Your task to perform on an android device: stop showing notifications on the lock screen Image 0: 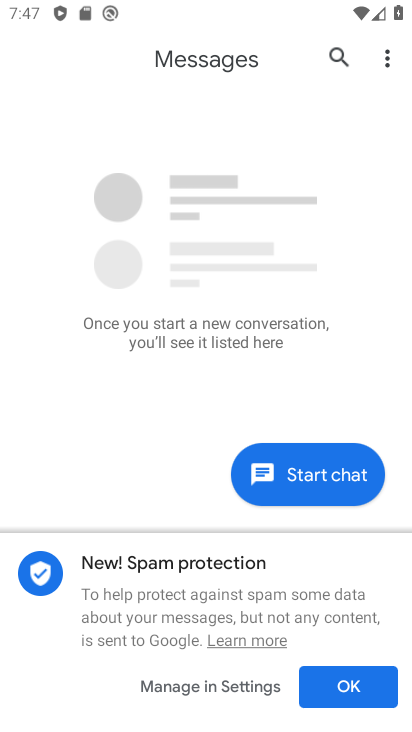
Step 0: press home button
Your task to perform on an android device: stop showing notifications on the lock screen Image 1: 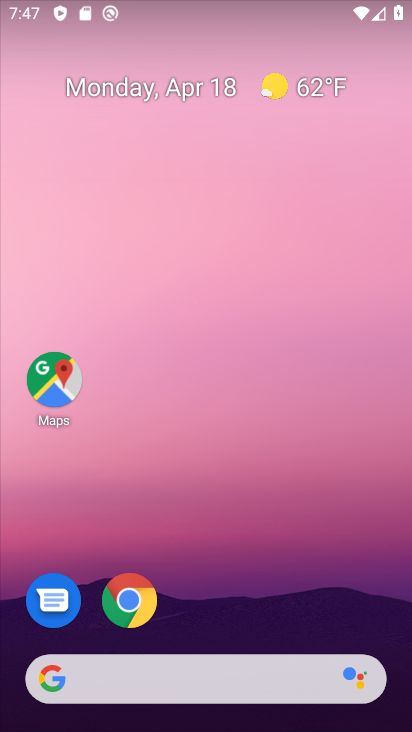
Step 1: drag from (200, 643) to (142, 1)
Your task to perform on an android device: stop showing notifications on the lock screen Image 2: 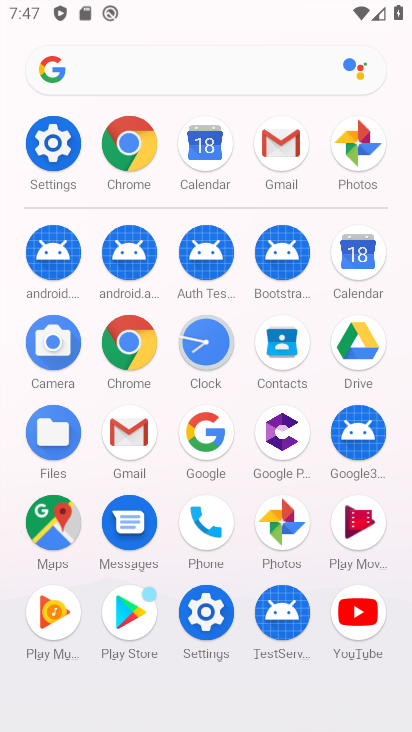
Step 2: click (64, 138)
Your task to perform on an android device: stop showing notifications on the lock screen Image 3: 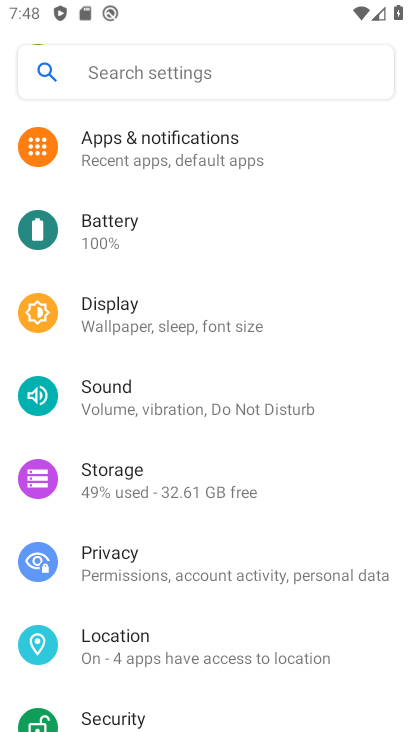
Step 3: click (128, 150)
Your task to perform on an android device: stop showing notifications on the lock screen Image 4: 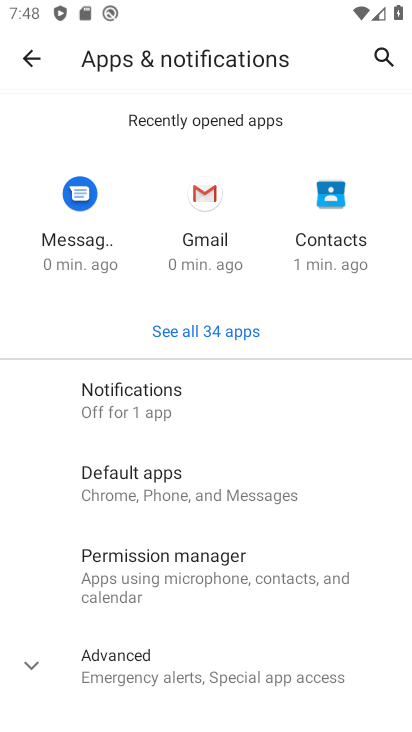
Step 4: click (138, 412)
Your task to perform on an android device: stop showing notifications on the lock screen Image 5: 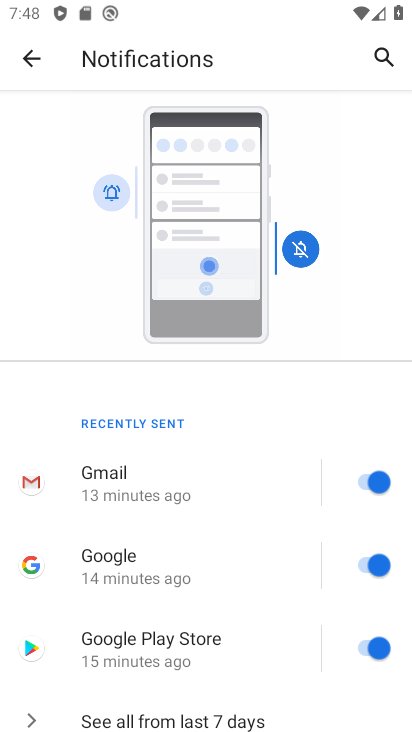
Step 5: drag from (160, 543) to (163, 42)
Your task to perform on an android device: stop showing notifications on the lock screen Image 6: 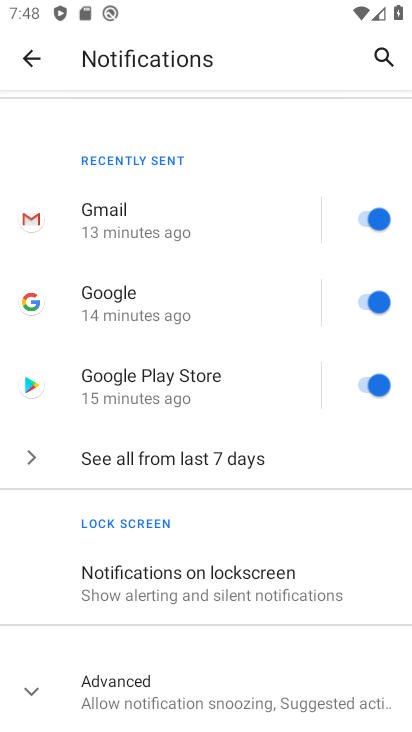
Step 6: click (183, 594)
Your task to perform on an android device: stop showing notifications on the lock screen Image 7: 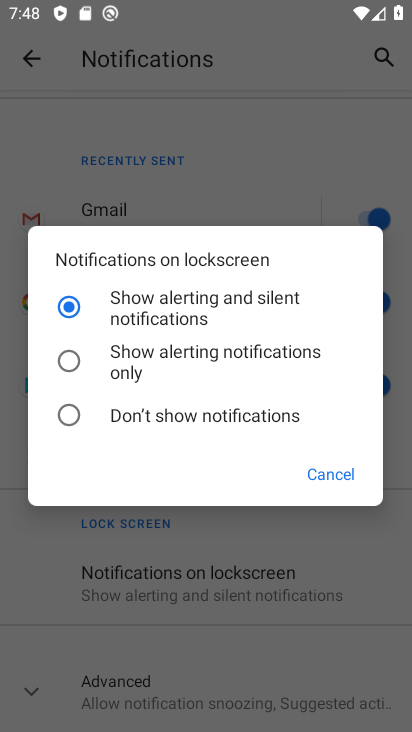
Step 7: click (136, 421)
Your task to perform on an android device: stop showing notifications on the lock screen Image 8: 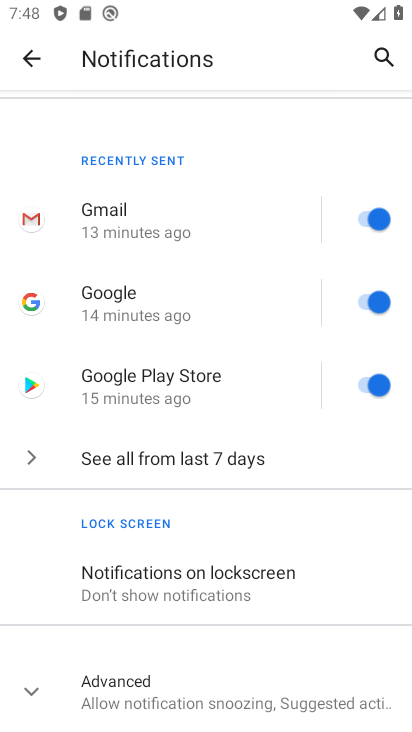
Step 8: task complete